Your task to perform on an android device: set default search engine in the chrome app Image 0: 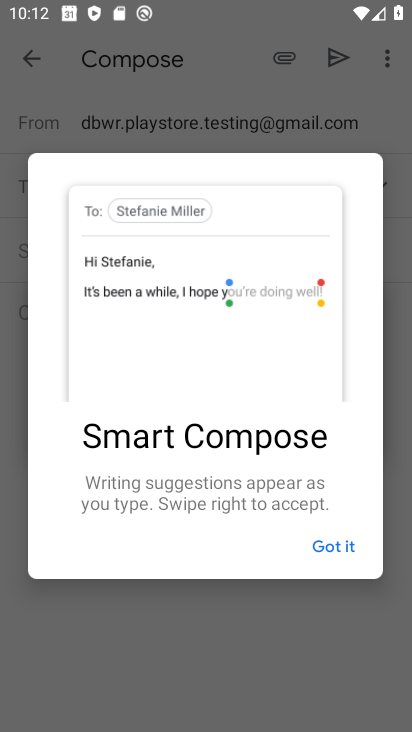
Step 0: press home button
Your task to perform on an android device: set default search engine in the chrome app Image 1: 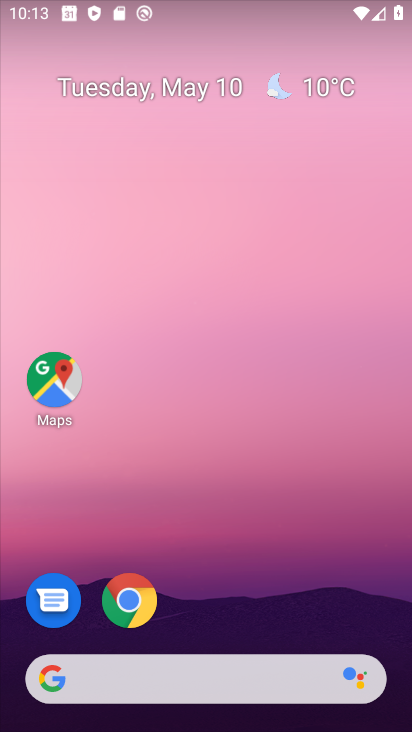
Step 1: drag from (256, 577) to (261, 182)
Your task to perform on an android device: set default search engine in the chrome app Image 2: 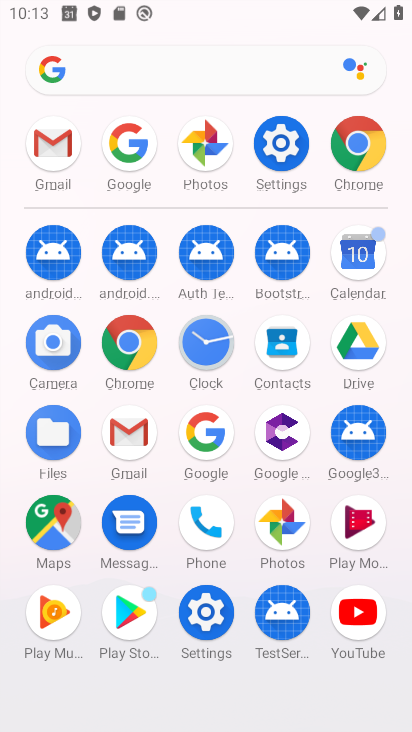
Step 2: click (381, 143)
Your task to perform on an android device: set default search engine in the chrome app Image 3: 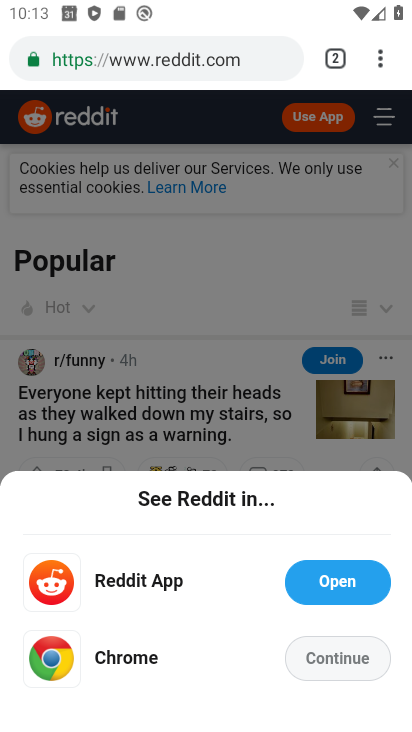
Step 3: drag from (361, 60) to (217, 624)
Your task to perform on an android device: set default search engine in the chrome app Image 4: 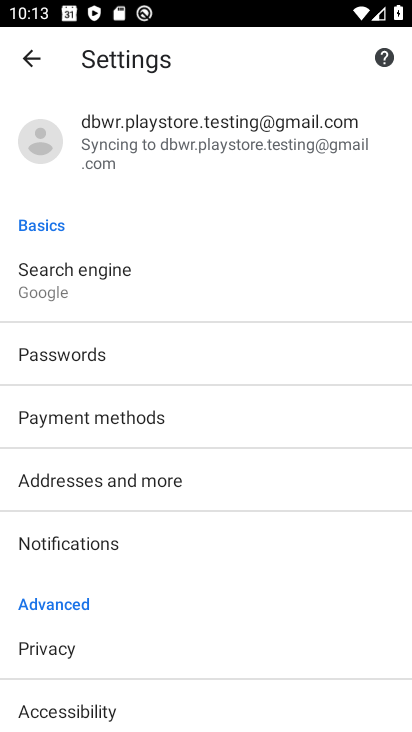
Step 4: click (94, 289)
Your task to perform on an android device: set default search engine in the chrome app Image 5: 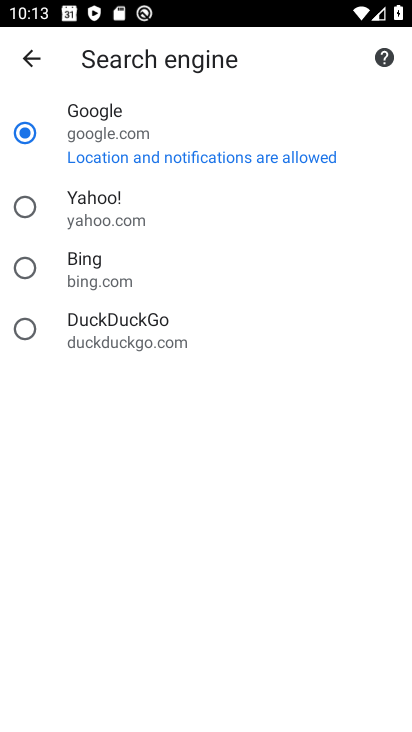
Step 5: task complete